Your task to perform on an android device: find snoozed emails in the gmail app Image 0: 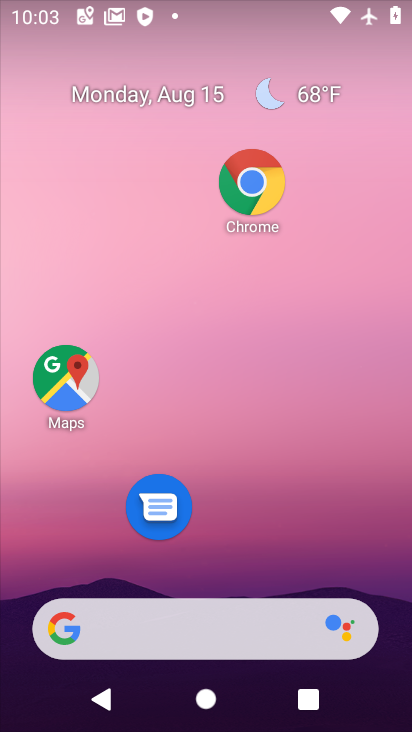
Step 0: drag from (273, 590) to (296, 100)
Your task to perform on an android device: find snoozed emails in the gmail app Image 1: 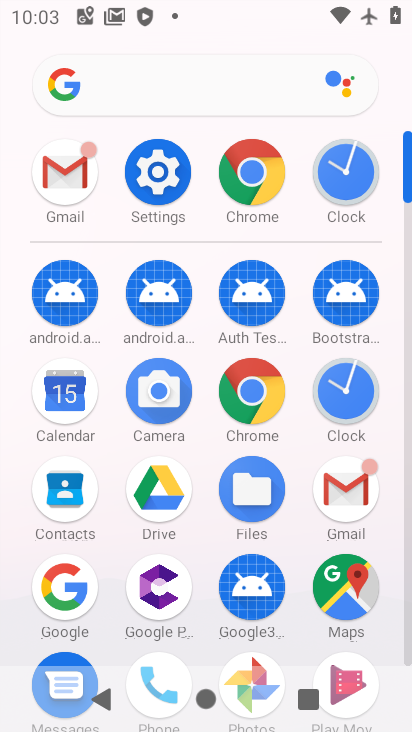
Step 1: click (47, 173)
Your task to perform on an android device: find snoozed emails in the gmail app Image 2: 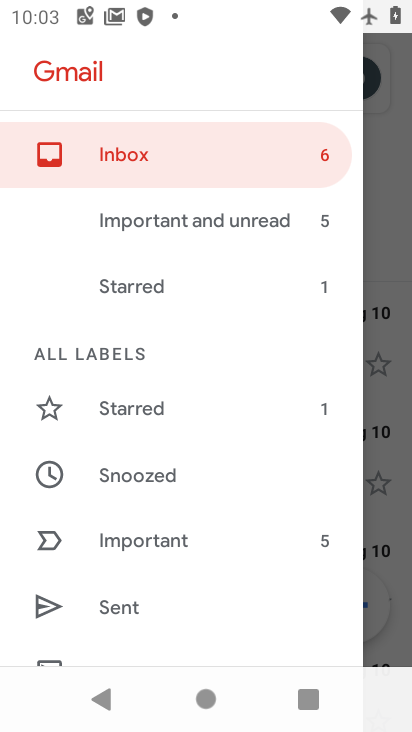
Step 2: click (165, 488)
Your task to perform on an android device: find snoozed emails in the gmail app Image 3: 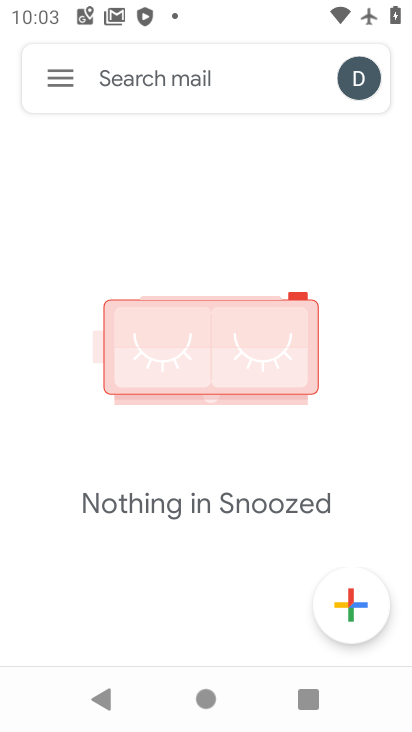
Step 3: task complete